Your task to perform on an android device: move an email to a new category in the gmail app Image 0: 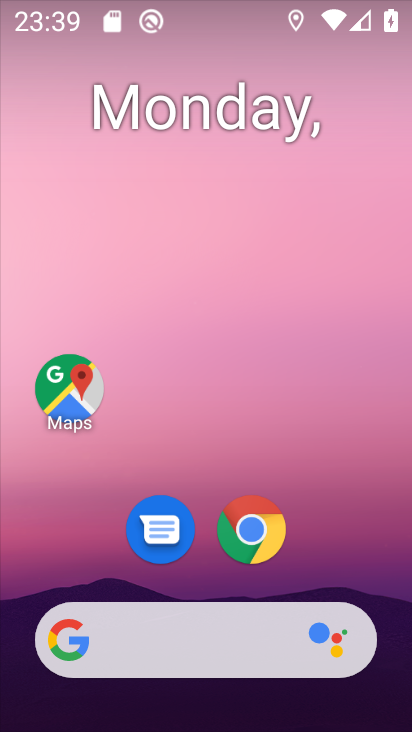
Step 0: drag from (337, 514) to (180, 4)
Your task to perform on an android device: move an email to a new category in the gmail app Image 1: 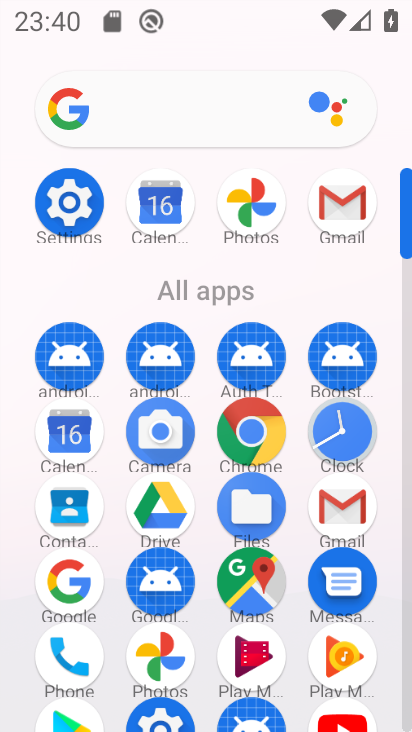
Step 1: click (326, 219)
Your task to perform on an android device: move an email to a new category in the gmail app Image 2: 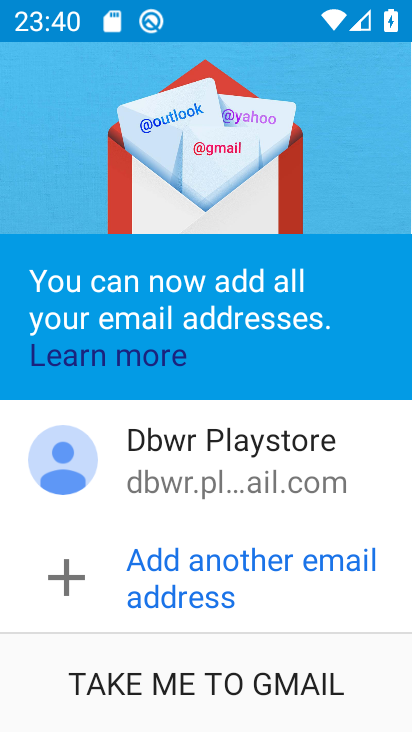
Step 2: click (183, 677)
Your task to perform on an android device: move an email to a new category in the gmail app Image 3: 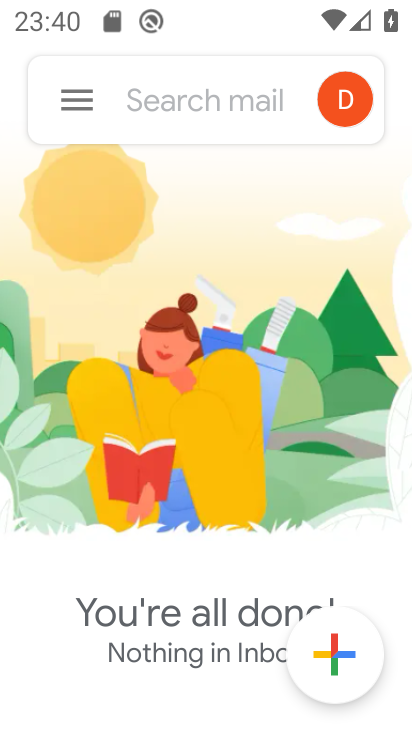
Step 3: click (68, 95)
Your task to perform on an android device: move an email to a new category in the gmail app Image 4: 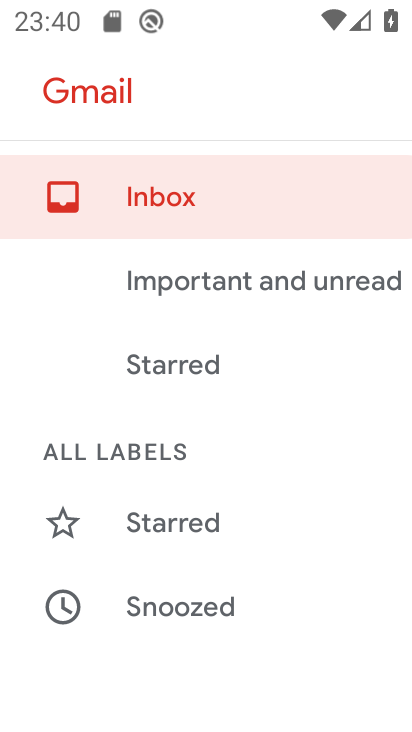
Step 4: drag from (182, 558) to (145, 251)
Your task to perform on an android device: move an email to a new category in the gmail app Image 5: 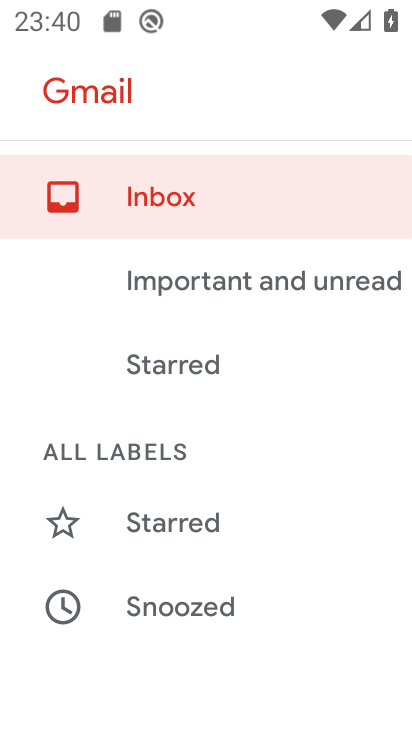
Step 5: drag from (217, 551) to (206, 221)
Your task to perform on an android device: move an email to a new category in the gmail app Image 6: 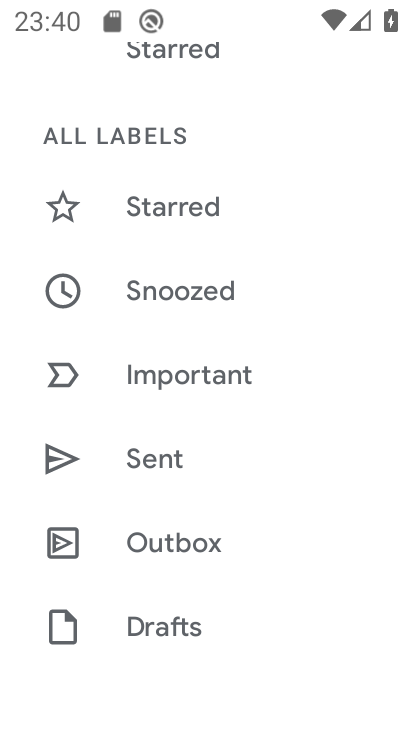
Step 6: drag from (205, 574) to (239, 245)
Your task to perform on an android device: move an email to a new category in the gmail app Image 7: 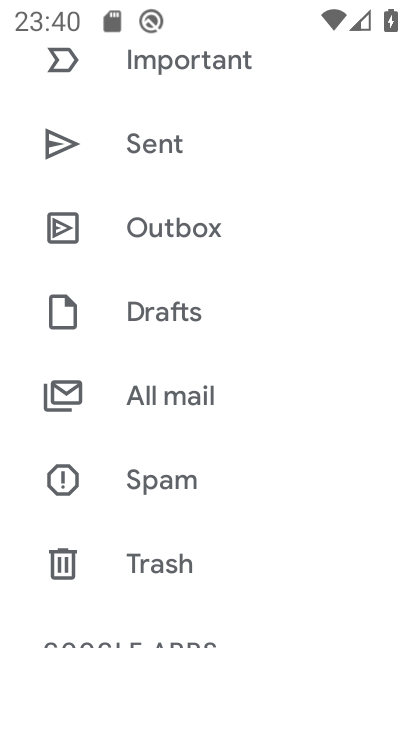
Step 7: click (176, 401)
Your task to perform on an android device: move an email to a new category in the gmail app Image 8: 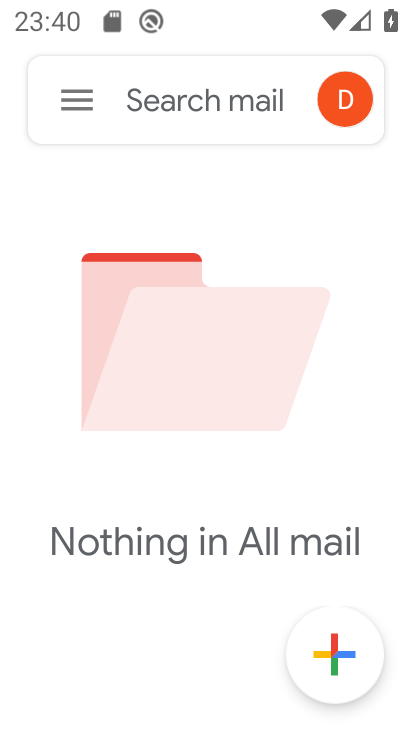
Step 8: task complete